Your task to perform on an android device: Open notification settings Image 0: 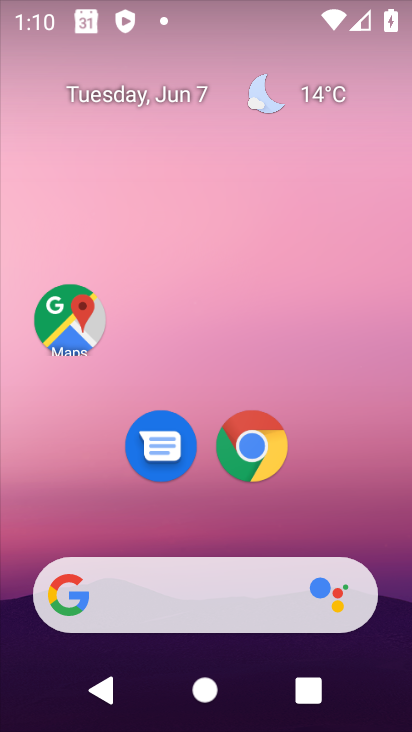
Step 0: drag from (235, 694) to (212, 81)
Your task to perform on an android device: Open notification settings Image 1: 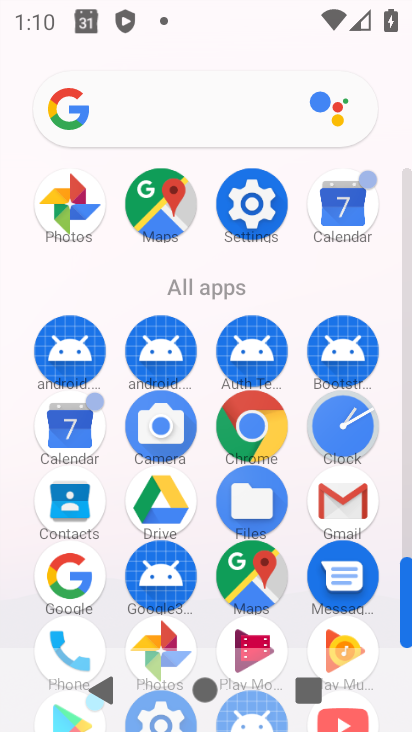
Step 1: click (251, 218)
Your task to perform on an android device: Open notification settings Image 2: 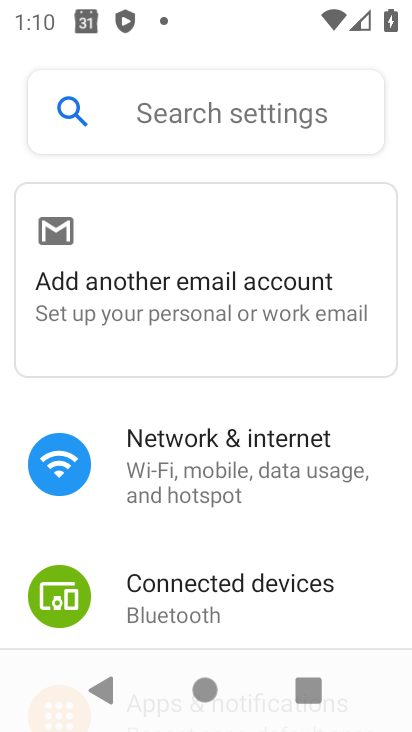
Step 2: drag from (200, 612) to (175, 27)
Your task to perform on an android device: Open notification settings Image 3: 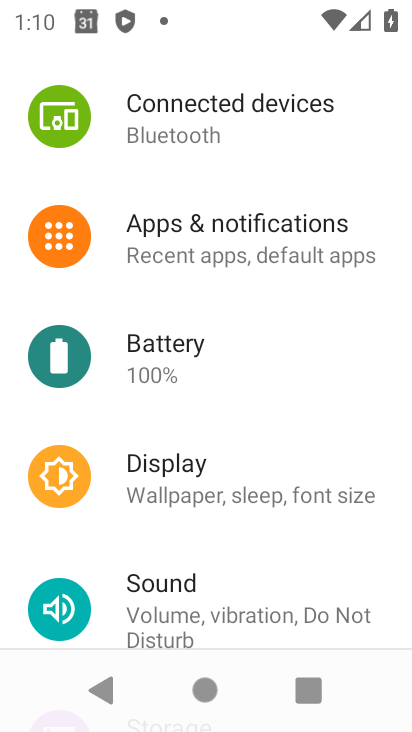
Step 3: click (283, 255)
Your task to perform on an android device: Open notification settings Image 4: 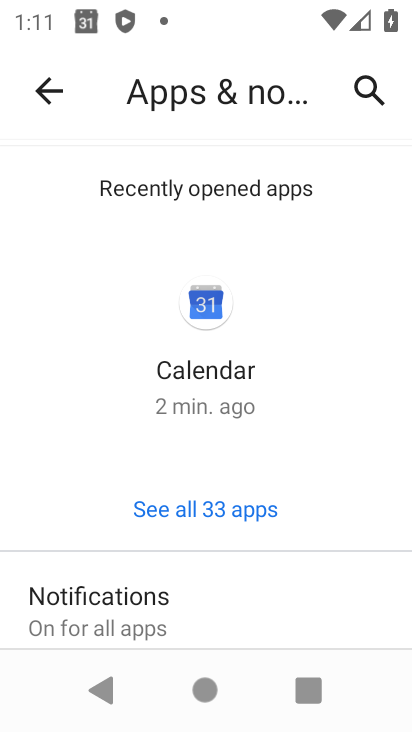
Step 4: task complete